Your task to perform on an android device: refresh tabs in the chrome app Image 0: 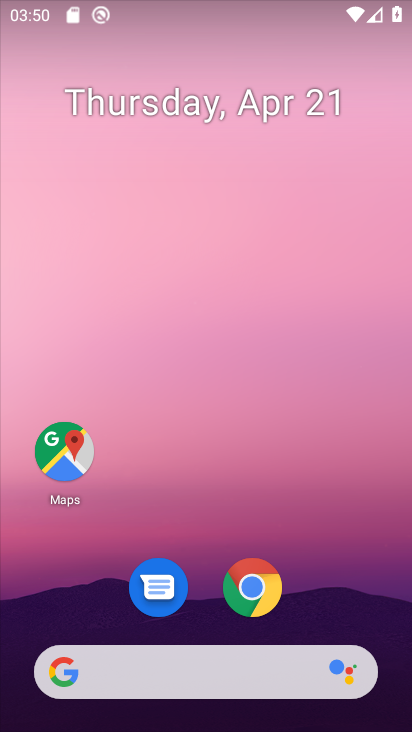
Step 0: drag from (312, 618) to (327, 150)
Your task to perform on an android device: refresh tabs in the chrome app Image 1: 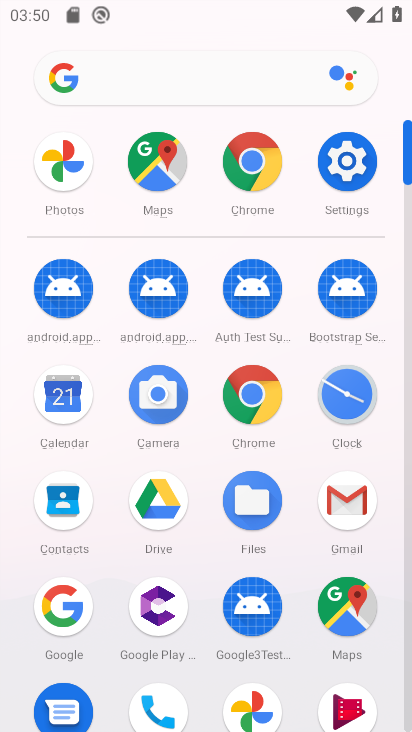
Step 1: click (266, 405)
Your task to perform on an android device: refresh tabs in the chrome app Image 2: 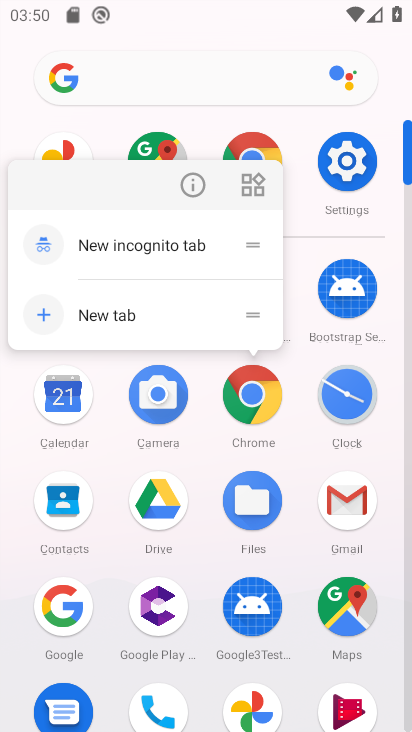
Step 2: click (266, 405)
Your task to perform on an android device: refresh tabs in the chrome app Image 3: 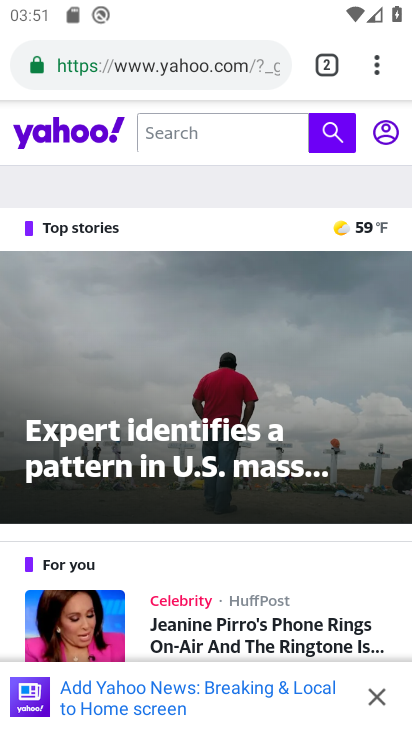
Step 3: click (379, 65)
Your task to perform on an android device: refresh tabs in the chrome app Image 4: 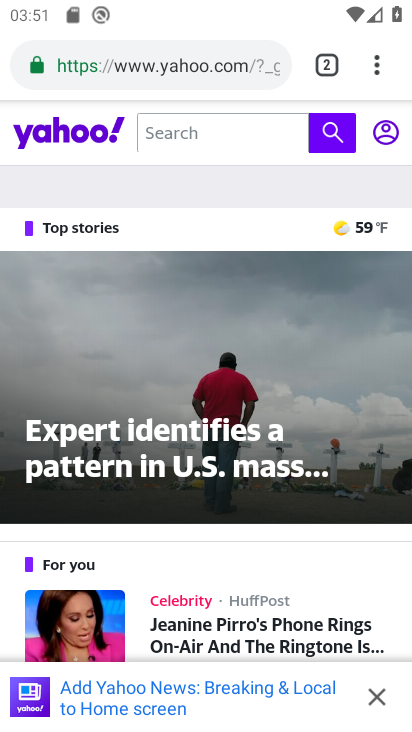
Step 4: task complete